Your task to perform on an android device: Go to calendar. Show me events next week Image 0: 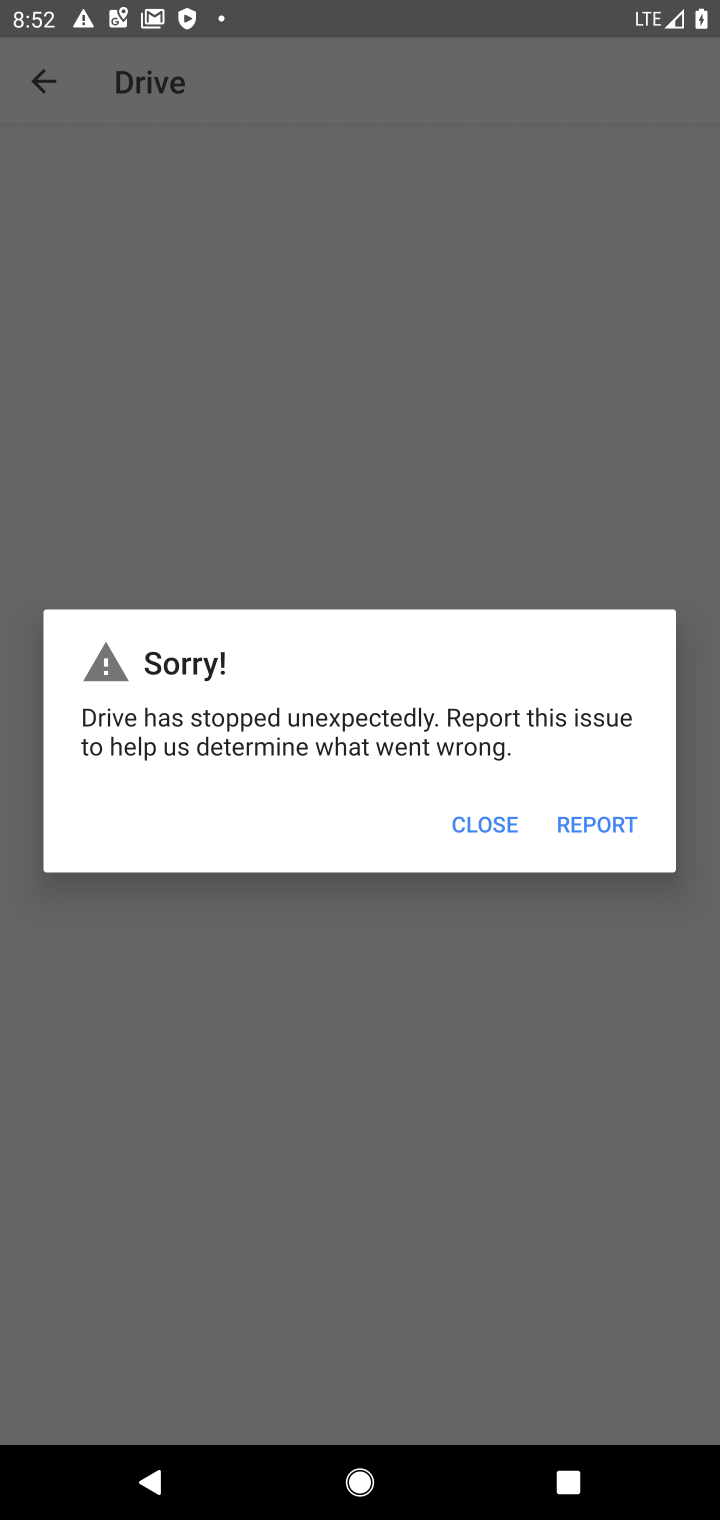
Step 0: press home button
Your task to perform on an android device: Go to calendar. Show me events next week Image 1: 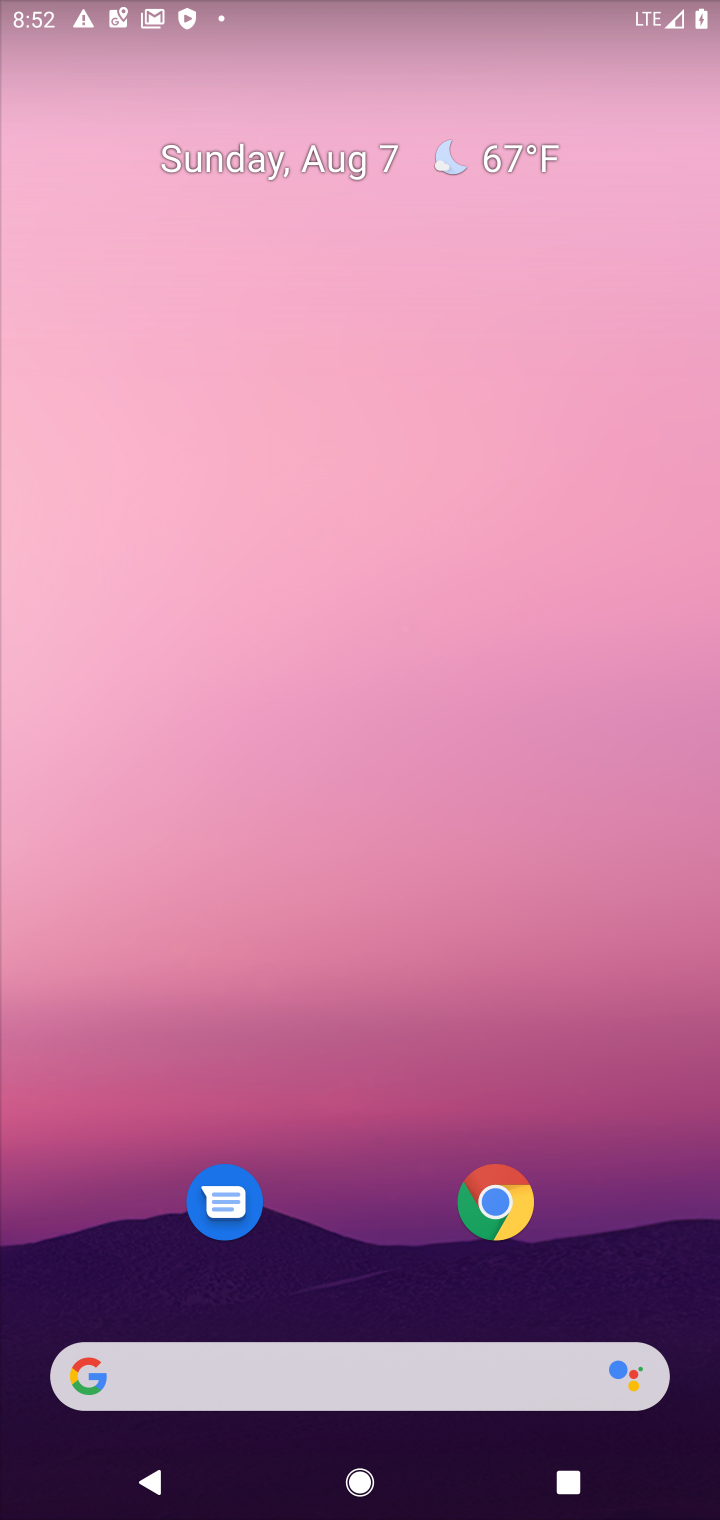
Step 1: drag from (379, 1117) to (313, 346)
Your task to perform on an android device: Go to calendar. Show me events next week Image 2: 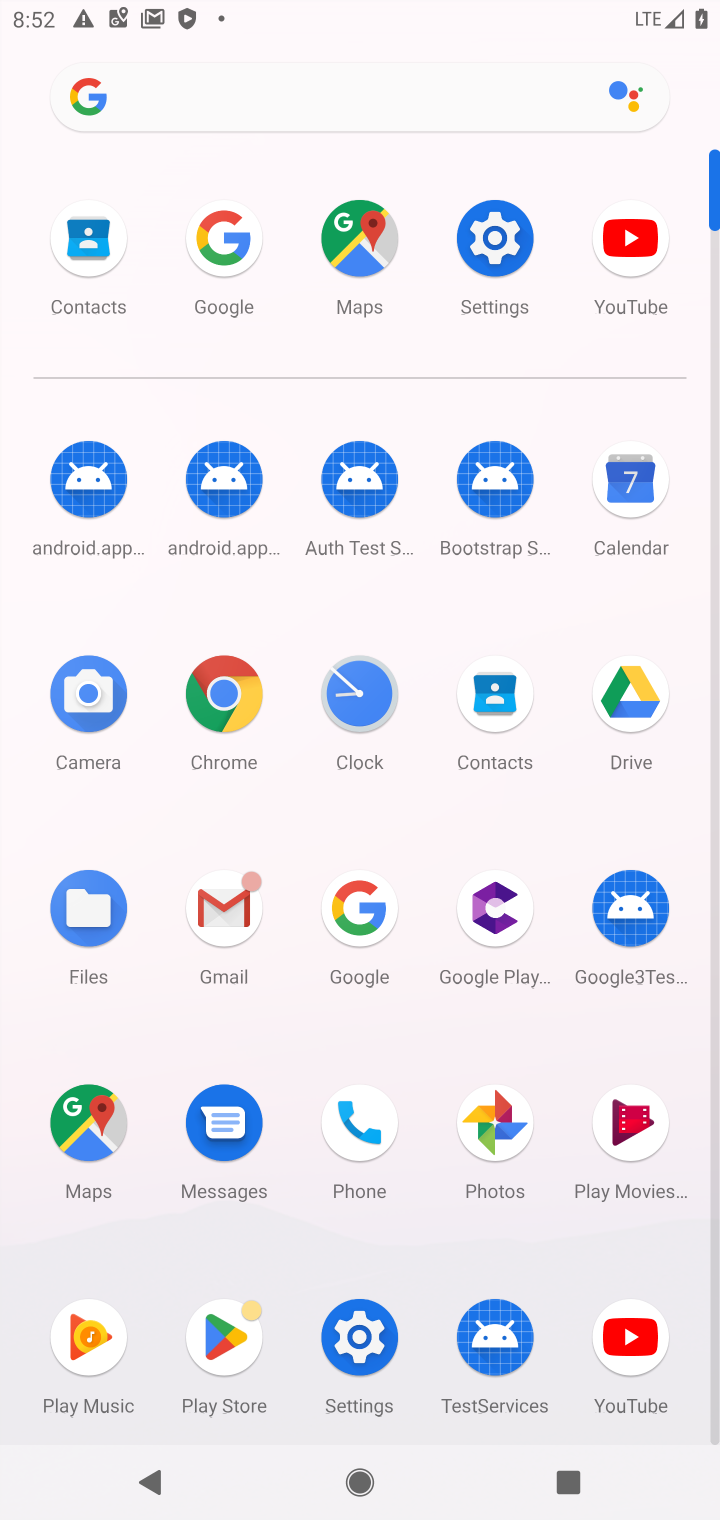
Step 2: click (656, 493)
Your task to perform on an android device: Go to calendar. Show me events next week Image 3: 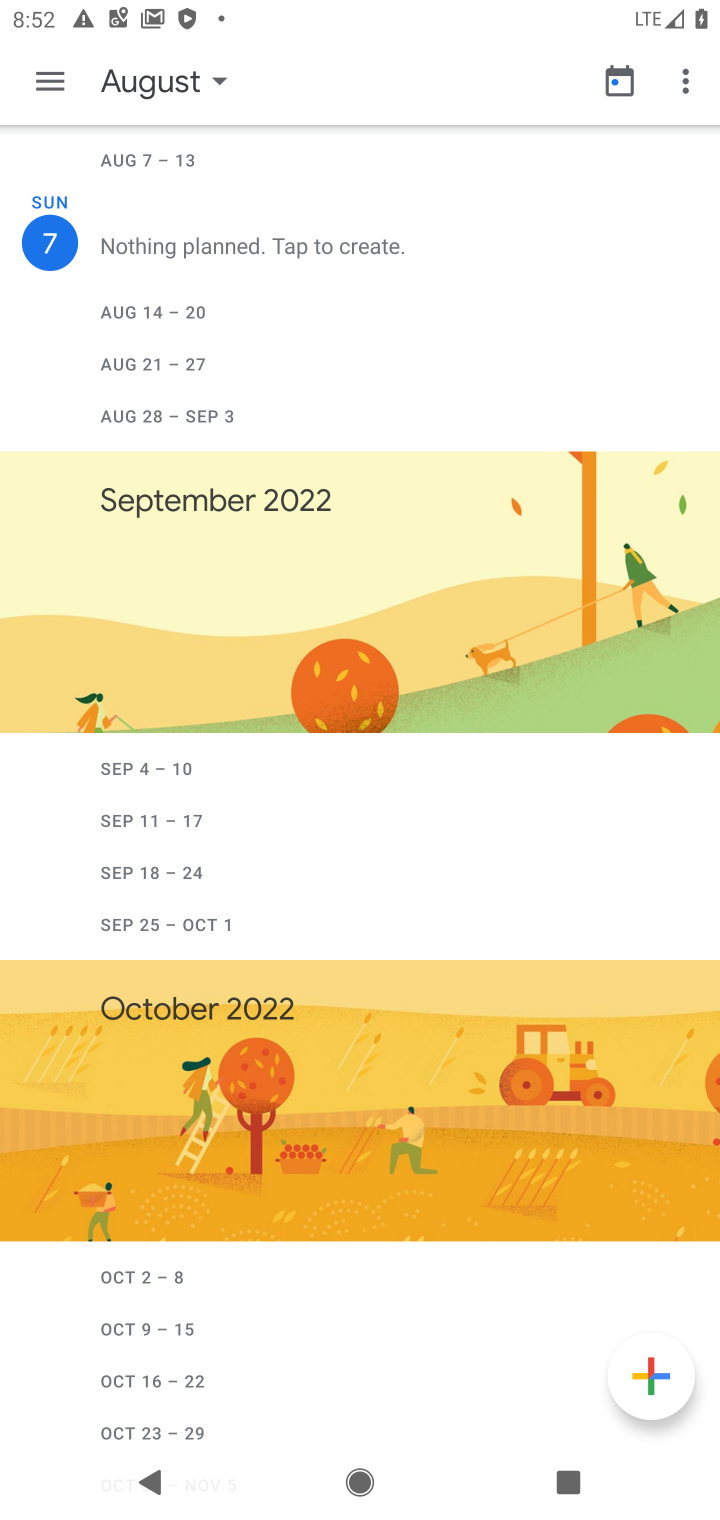
Step 3: click (129, 104)
Your task to perform on an android device: Go to calendar. Show me events next week Image 4: 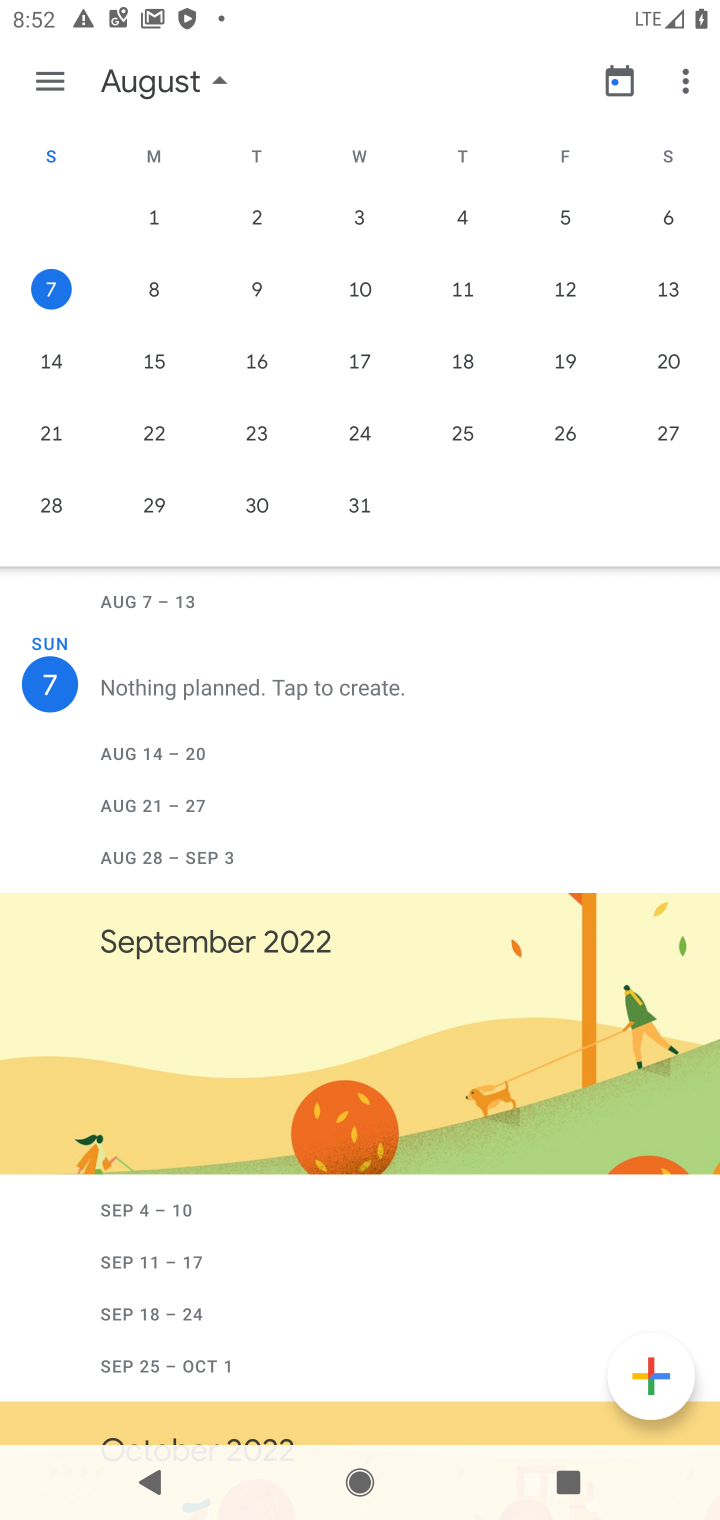
Step 4: click (52, 375)
Your task to perform on an android device: Go to calendar. Show me events next week Image 5: 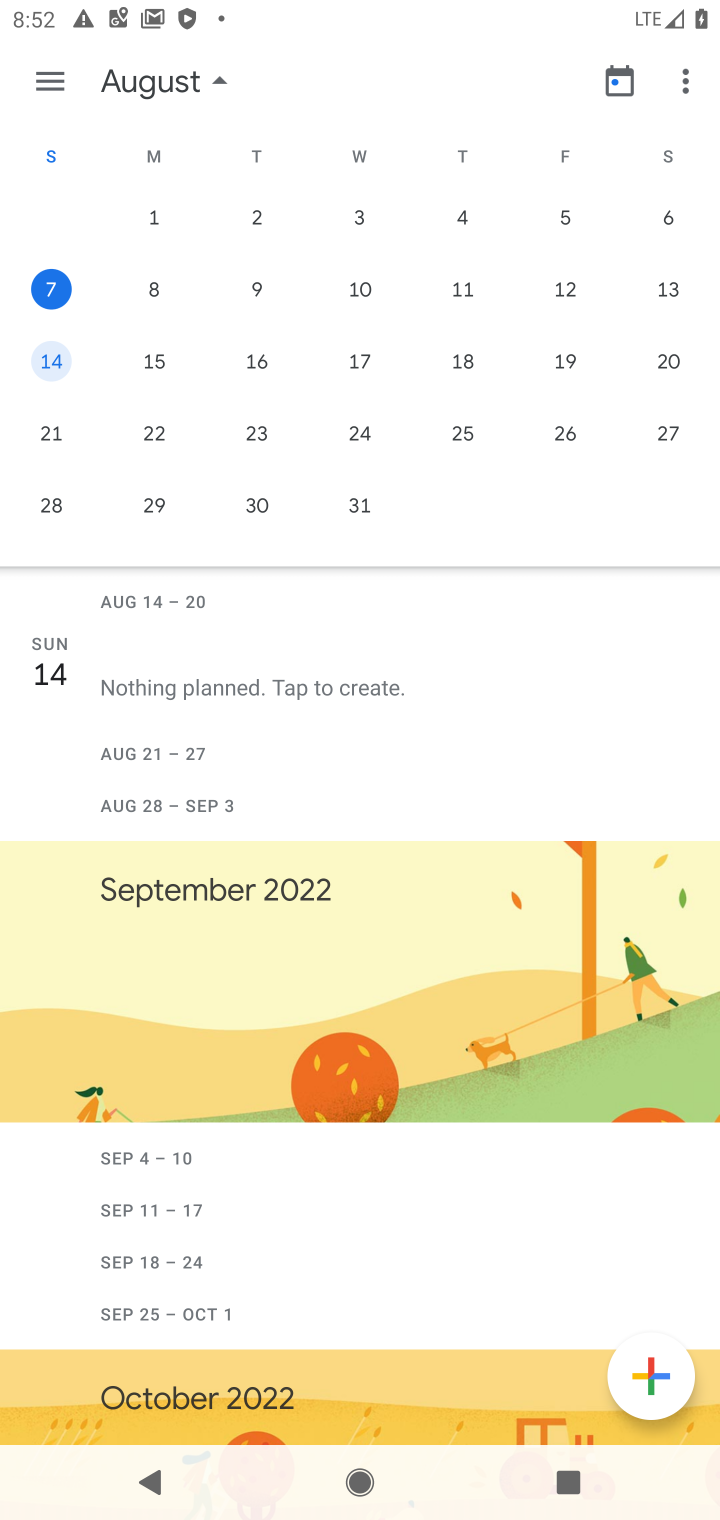
Step 5: click (160, 372)
Your task to perform on an android device: Go to calendar. Show me events next week Image 6: 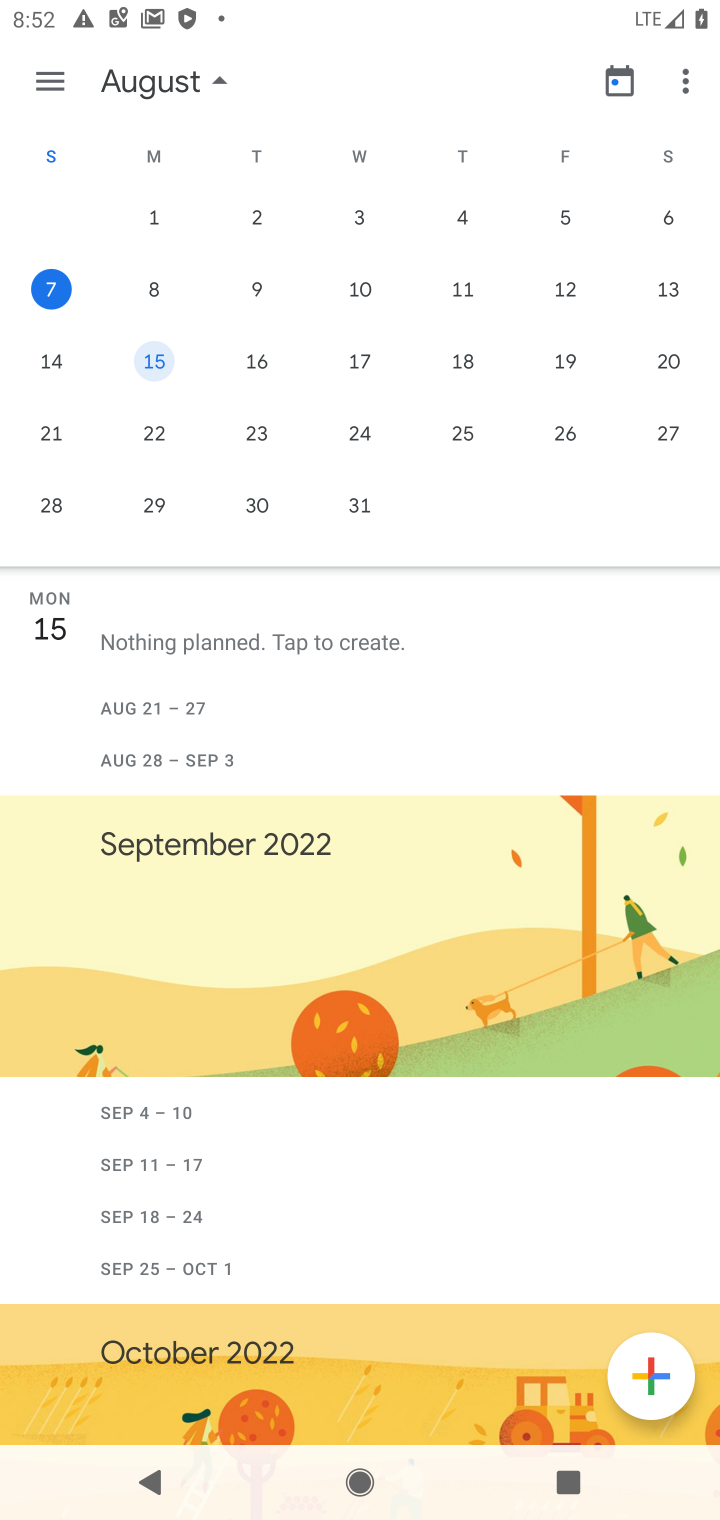
Step 6: click (287, 369)
Your task to perform on an android device: Go to calendar. Show me events next week Image 7: 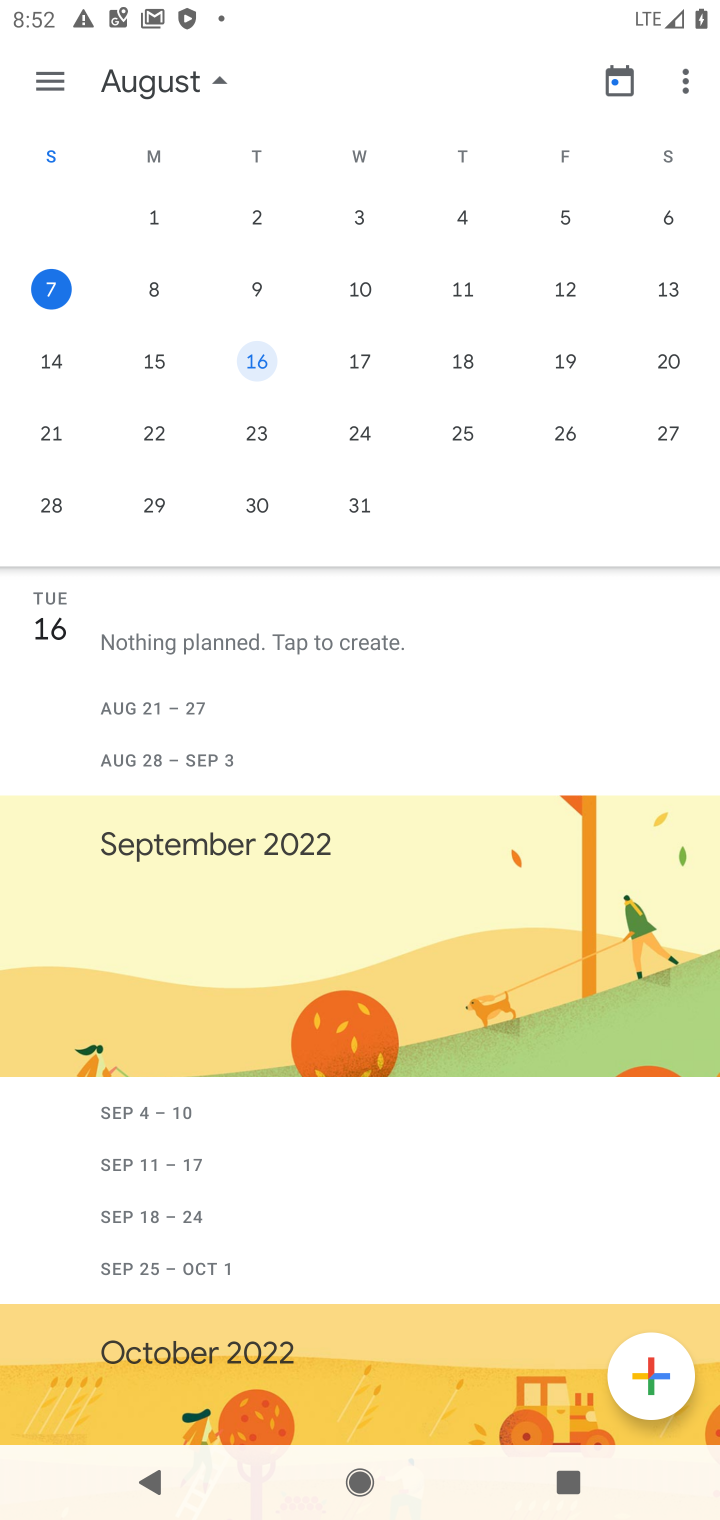
Step 7: click (391, 367)
Your task to perform on an android device: Go to calendar. Show me events next week Image 8: 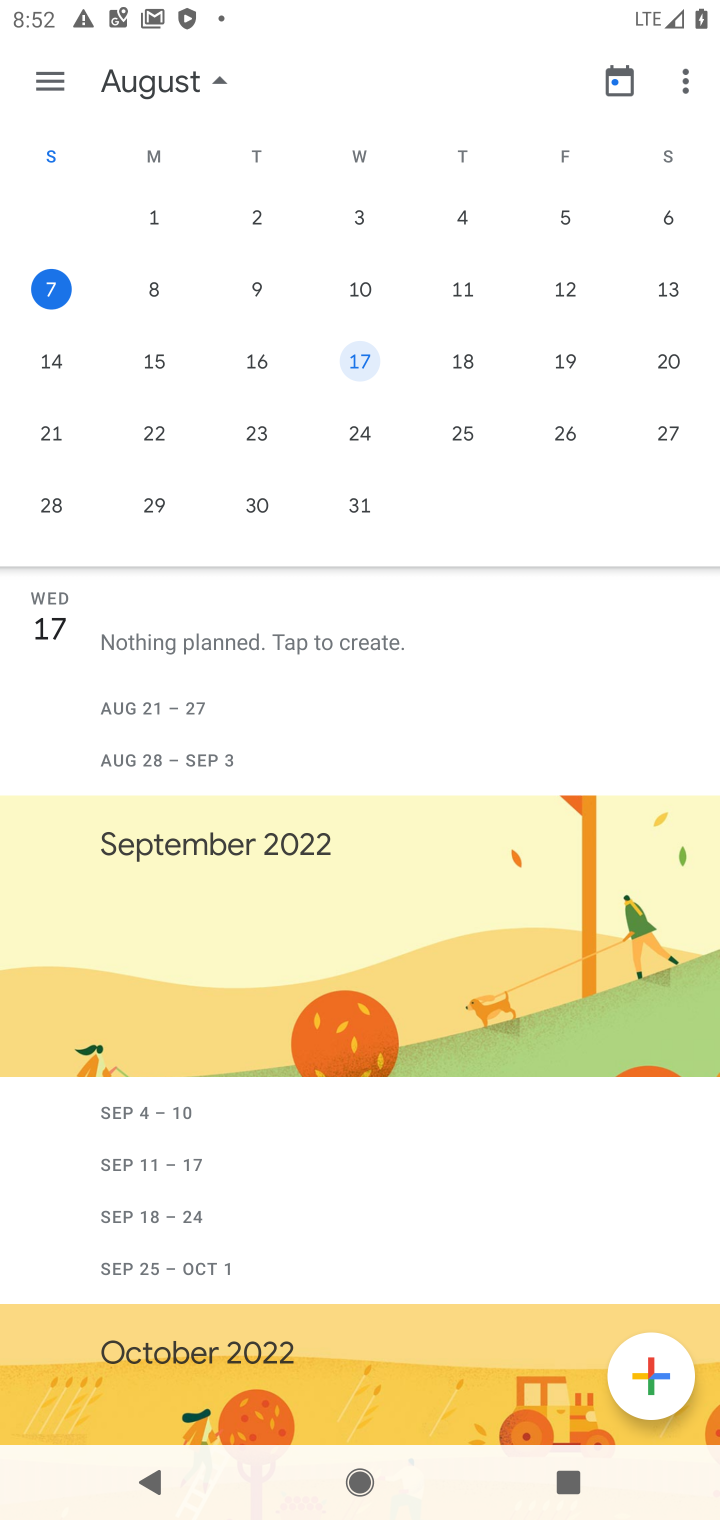
Step 8: click (460, 359)
Your task to perform on an android device: Go to calendar. Show me events next week Image 9: 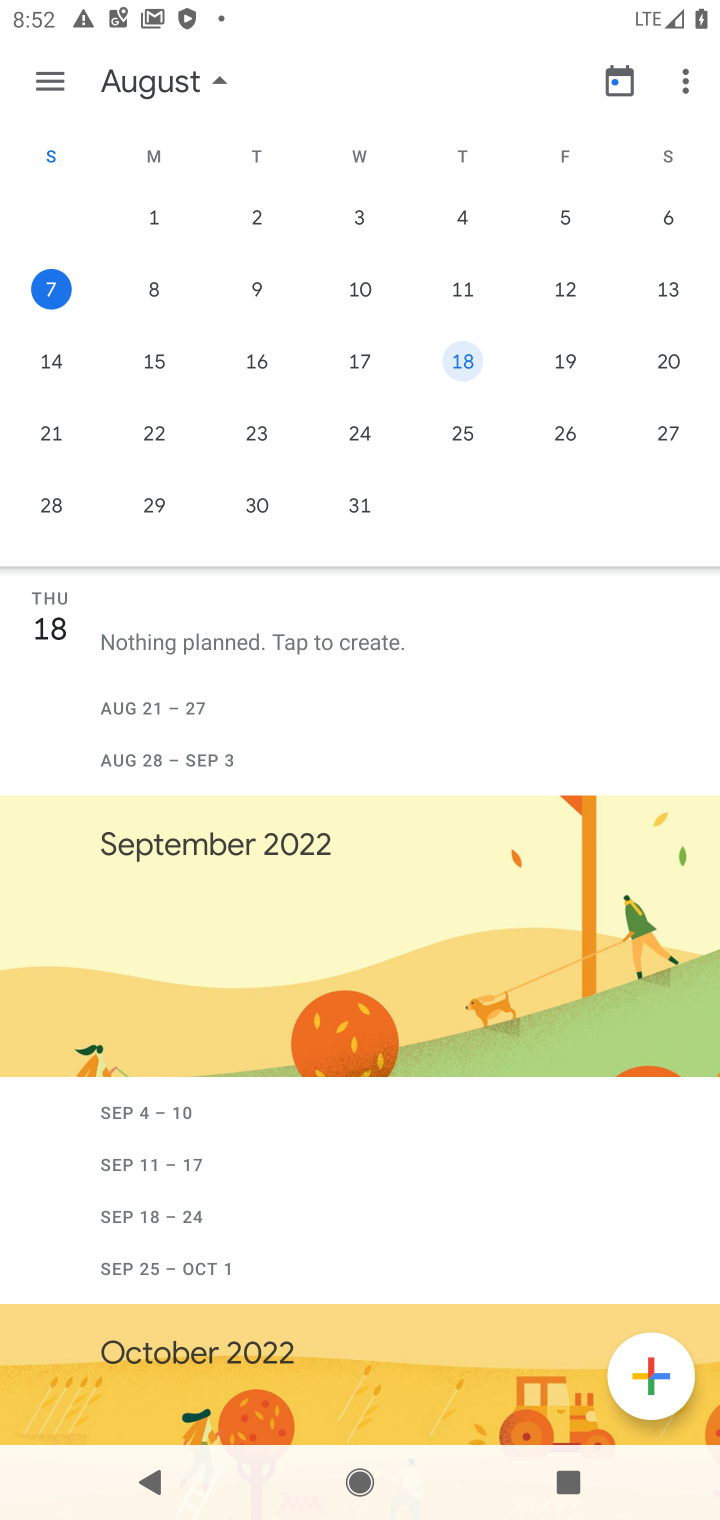
Step 9: click (588, 355)
Your task to perform on an android device: Go to calendar. Show me events next week Image 10: 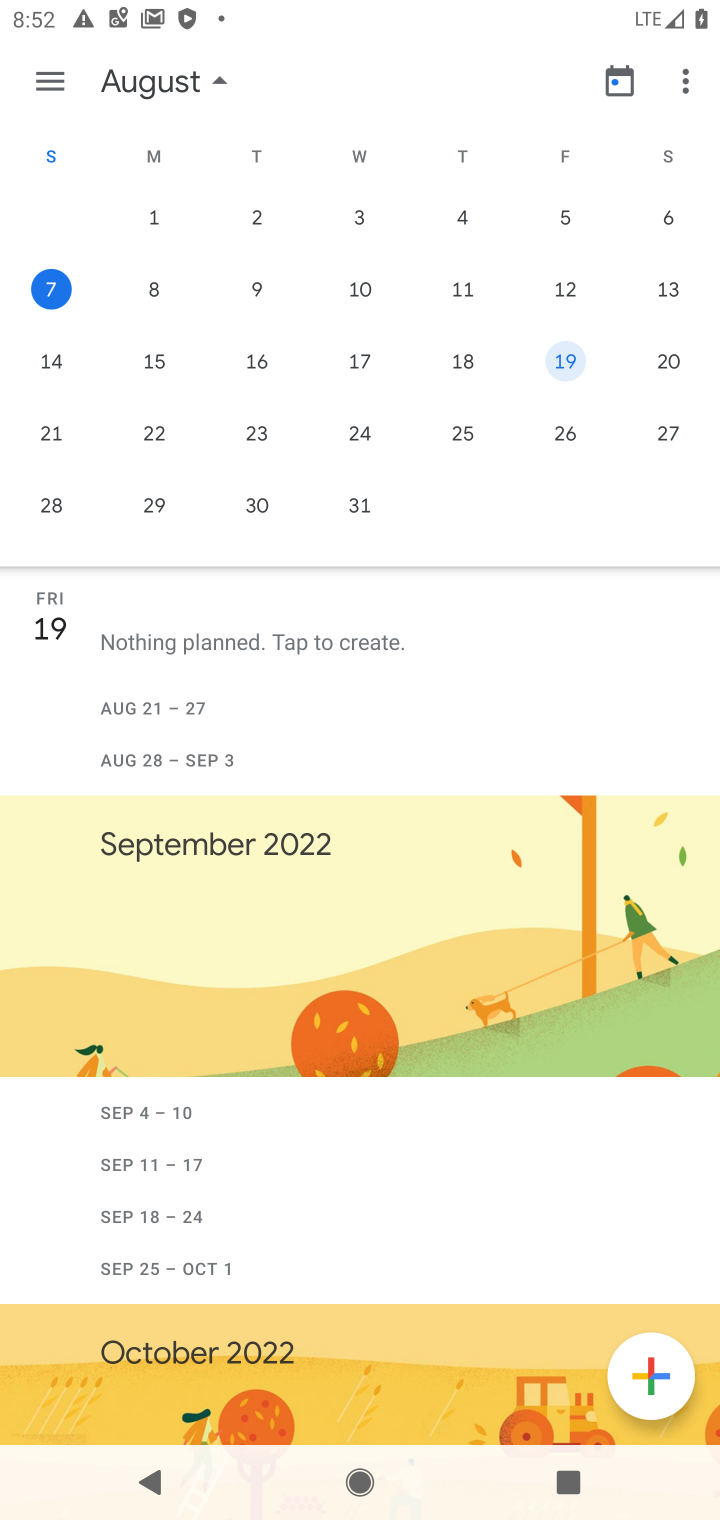
Step 10: click (656, 355)
Your task to perform on an android device: Go to calendar. Show me events next week Image 11: 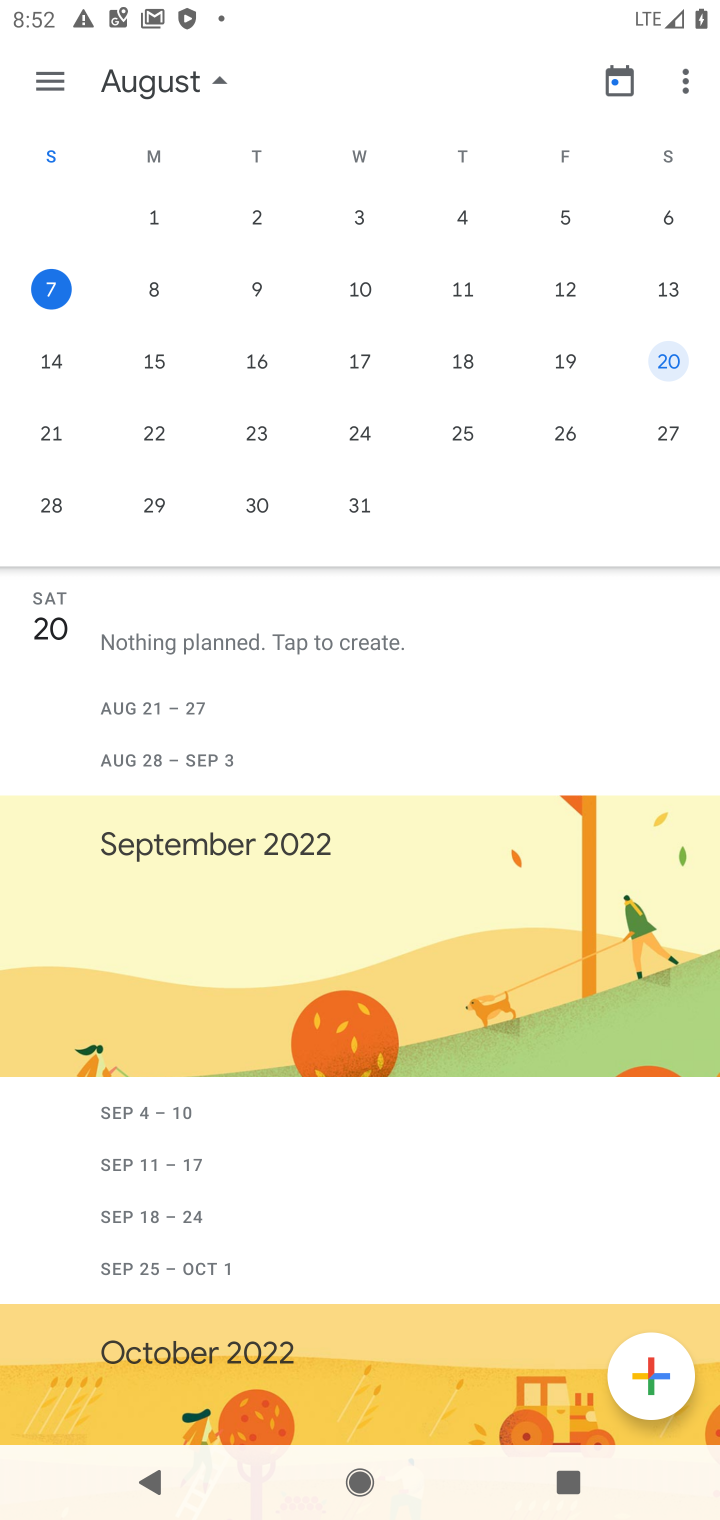
Step 11: task complete